Your task to perform on an android device: turn pop-ups off in chrome Image 0: 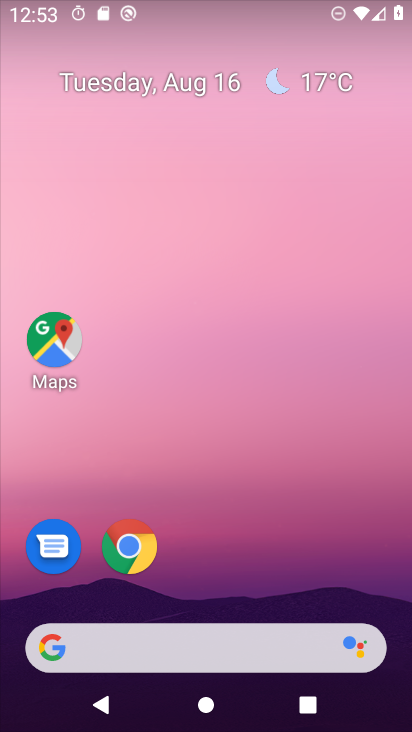
Step 0: click (127, 546)
Your task to perform on an android device: turn pop-ups off in chrome Image 1: 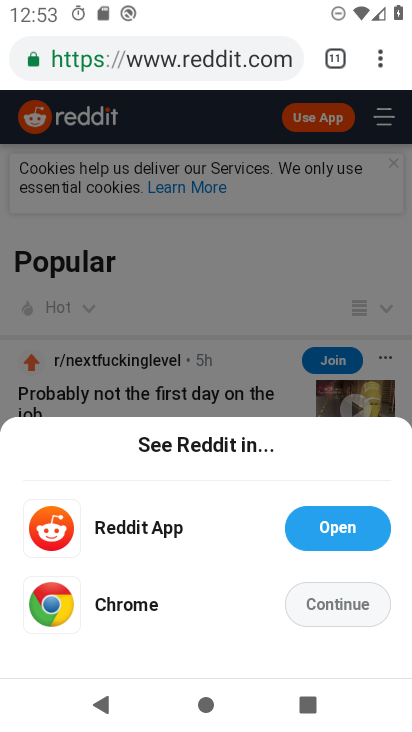
Step 1: click (381, 63)
Your task to perform on an android device: turn pop-ups off in chrome Image 2: 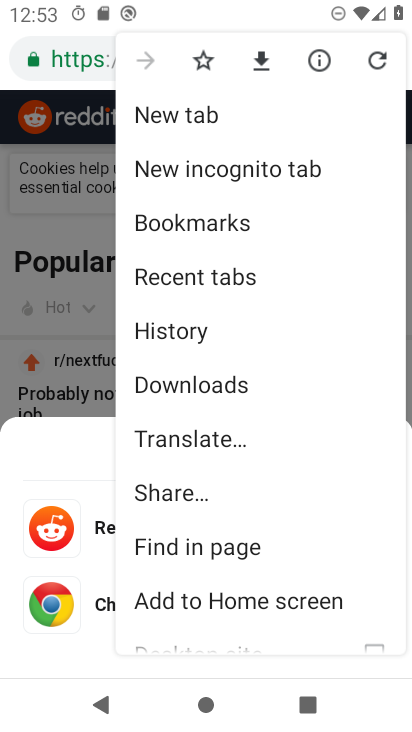
Step 2: drag from (167, 625) to (166, 272)
Your task to perform on an android device: turn pop-ups off in chrome Image 3: 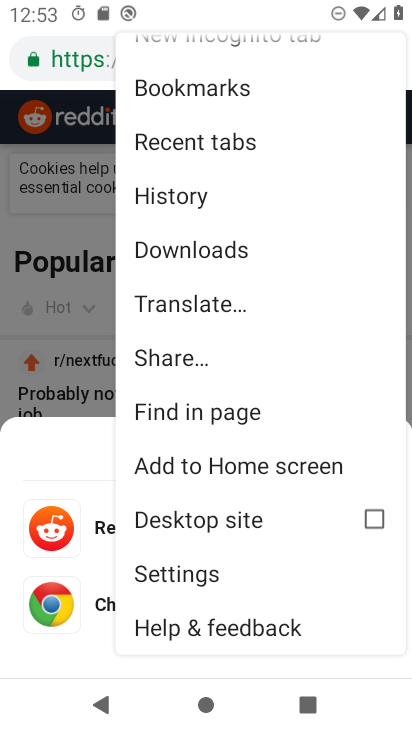
Step 3: click (193, 566)
Your task to perform on an android device: turn pop-ups off in chrome Image 4: 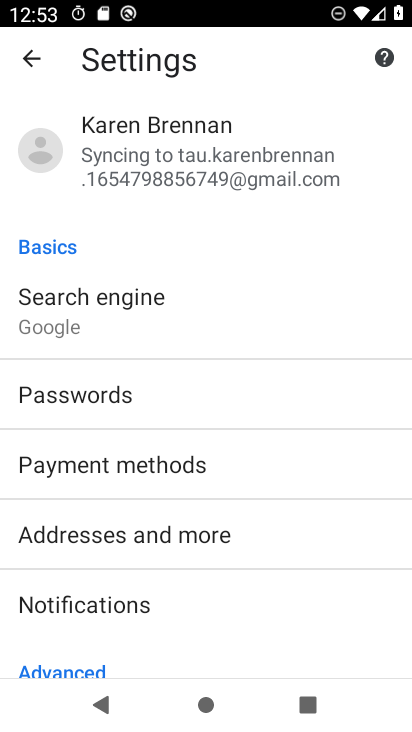
Step 4: drag from (91, 641) to (91, 352)
Your task to perform on an android device: turn pop-ups off in chrome Image 5: 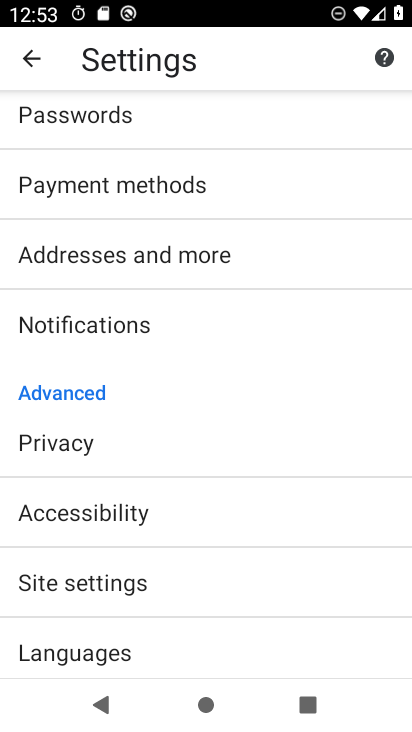
Step 5: click (81, 580)
Your task to perform on an android device: turn pop-ups off in chrome Image 6: 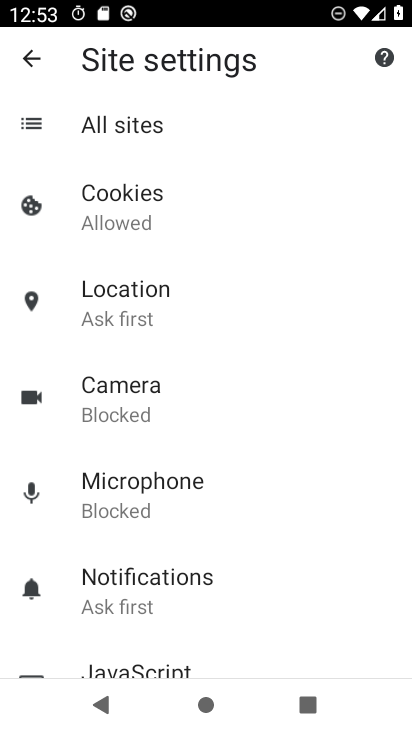
Step 6: drag from (162, 602) to (162, 275)
Your task to perform on an android device: turn pop-ups off in chrome Image 7: 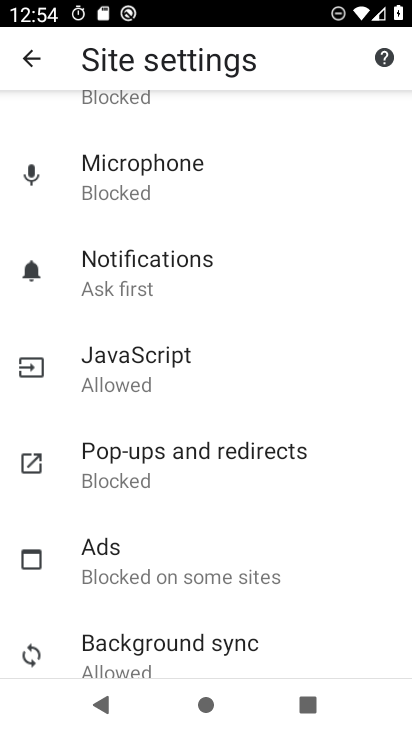
Step 7: click (137, 456)
Your task to perform on an android device: turn pop-ups off in chrome Image 8: 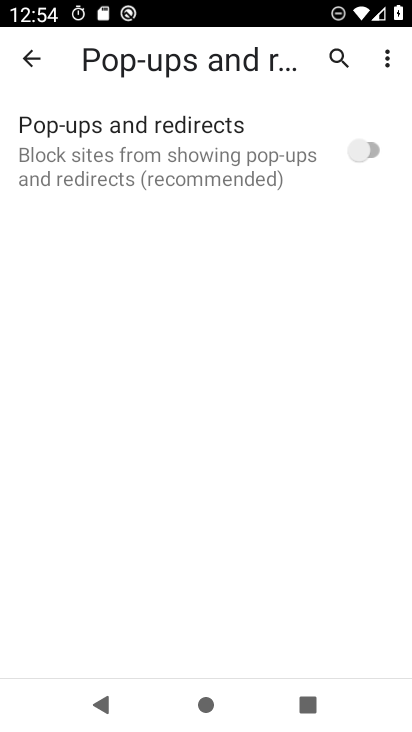
Step 8: task complete